Your task to perform on an android device: set the stopwatch Image 0: 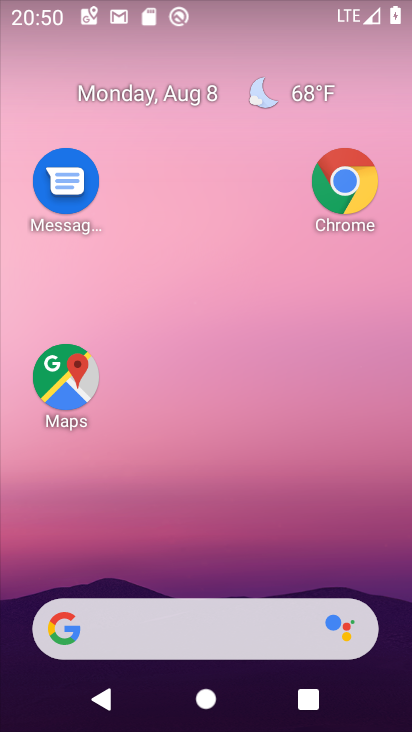
Step 0: drag from (276, 568) to (356, 33)
Your task to perform on an android device: set the stopwatch Image 1: 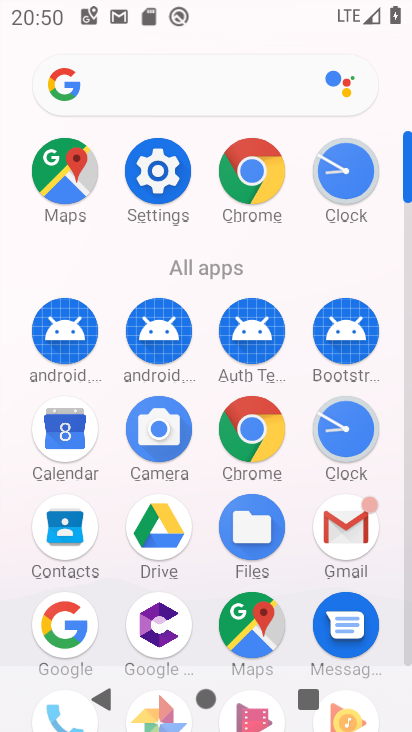
Step 1: click (322, 443)
Your task to perform on an android device: set the stopwatch Image 2: 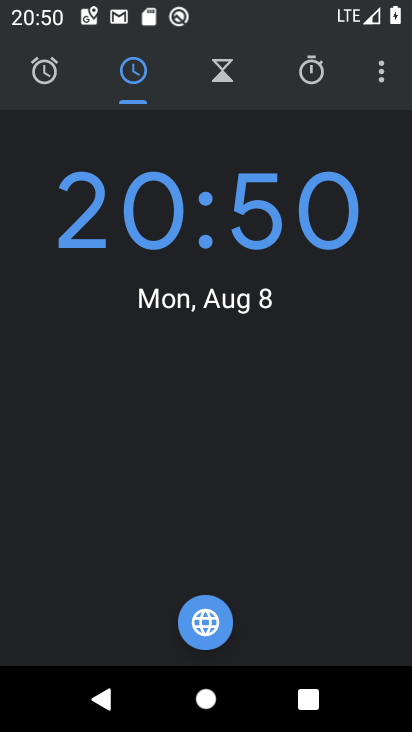
Step 2: click (292, 60)
Your task to perform on an android device: set the stopwatch Image 3: 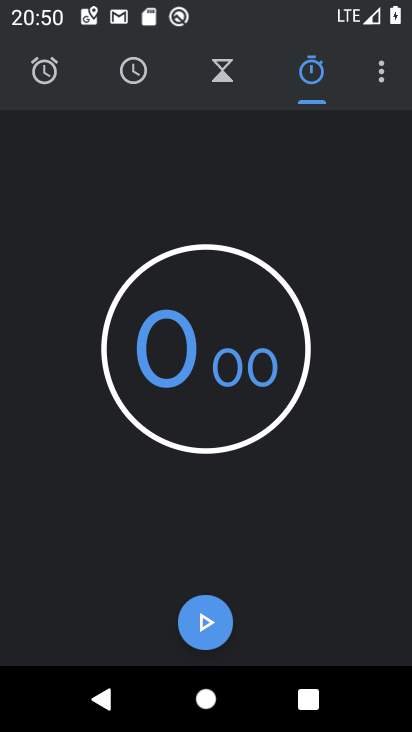
Step 3: task complete